Your task to perform on an android device: add a contact Image 0: 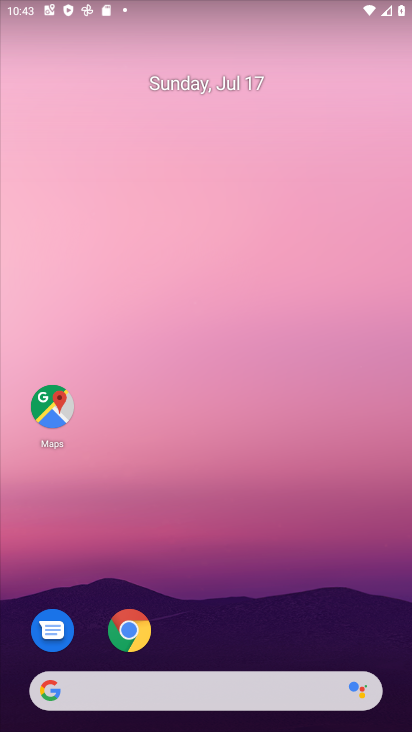
Step 0: drag from (311, 607) to (290, 22)
Your task to perform on an android device: add a contact Image 1: 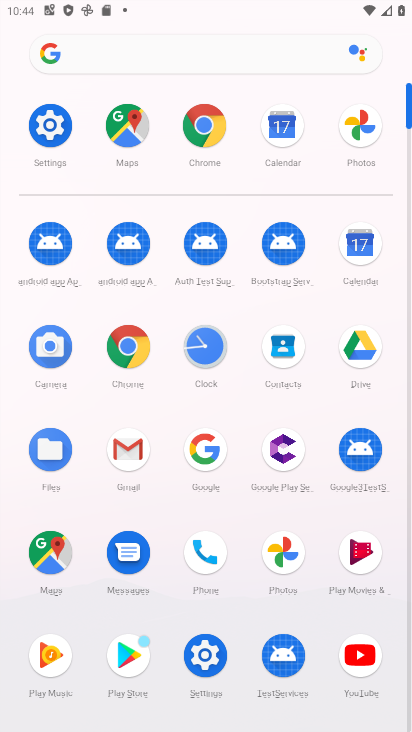
Step 1: click (294, 356)
Your task to perform on an android device: add a contact Image 2: 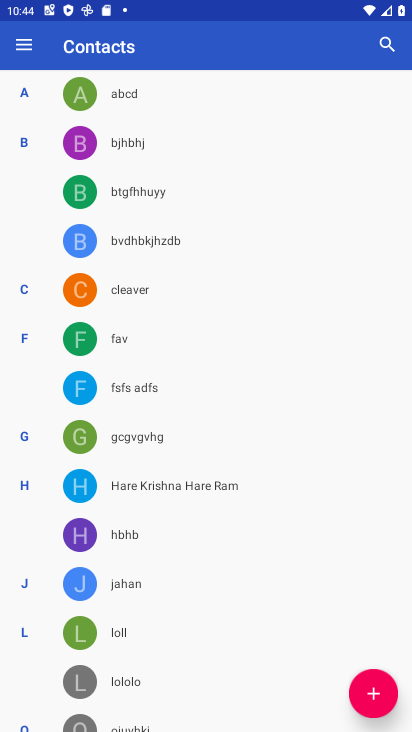
Step 2: click (364, 685)
Your task to perform on an android device: add a contact Image 3: 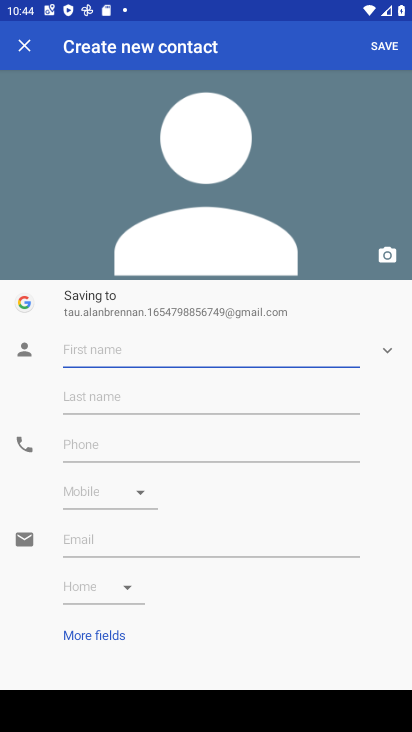
Step 3: type "cdcc"
Your task to perform on an android device: add a contact Image 4: 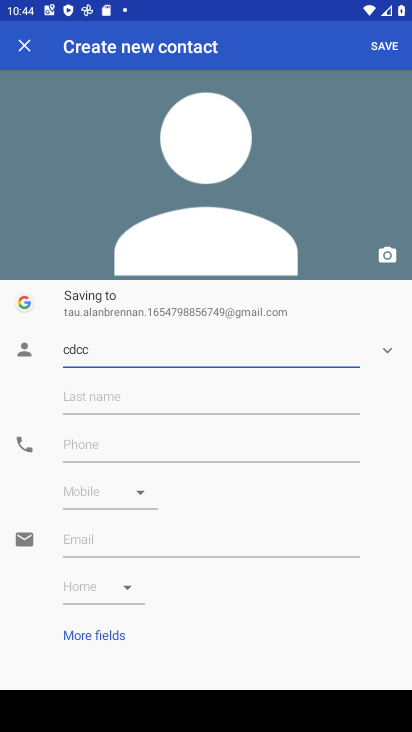
Step 4: type "s"
Your task to perform on an android device: add a contact Image 5: 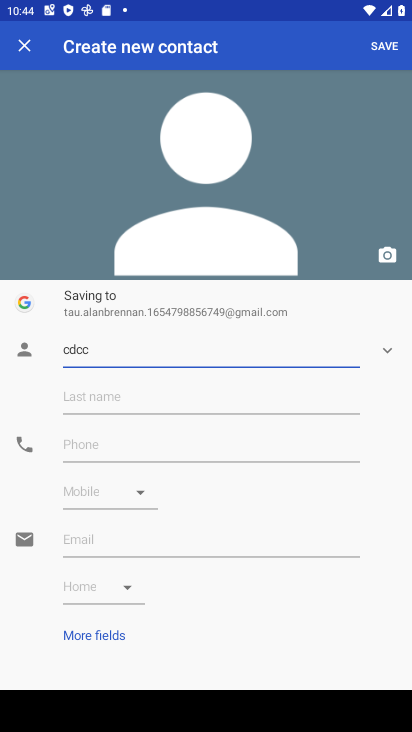
Step 5: click (160, 380)
Your task to perform on an android device: add a contact Image 6: 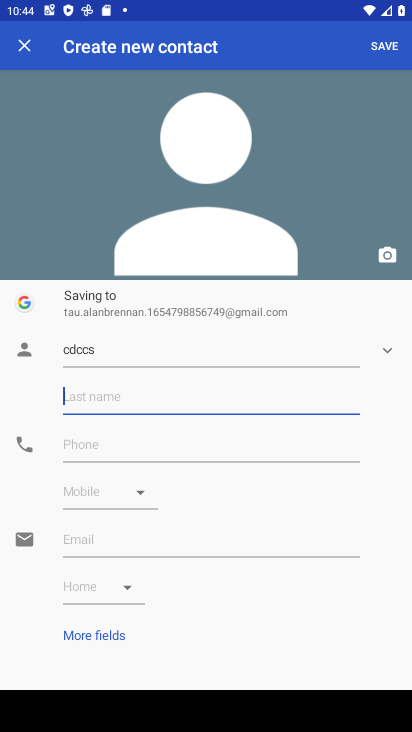
Step 6: type "scsdc"
Your task to perform on an android device: add a contact Image 7: 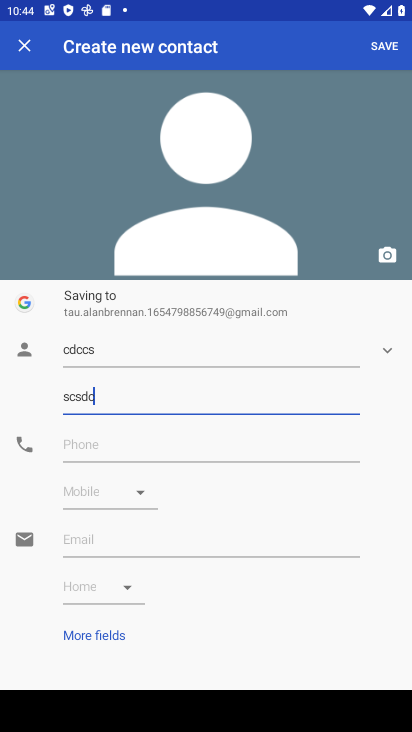
Step 7: click (116, 456)
Your task to perform on an android device: add a contact Image 8: 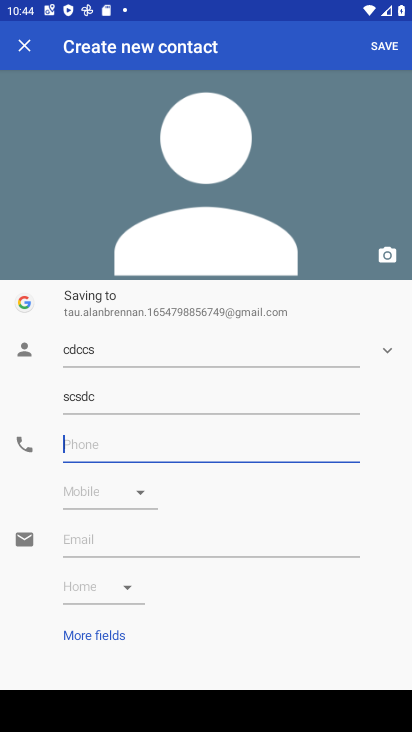
Step 8: type "234234234"
Your task to perform on an android device: add a contact Image 9: 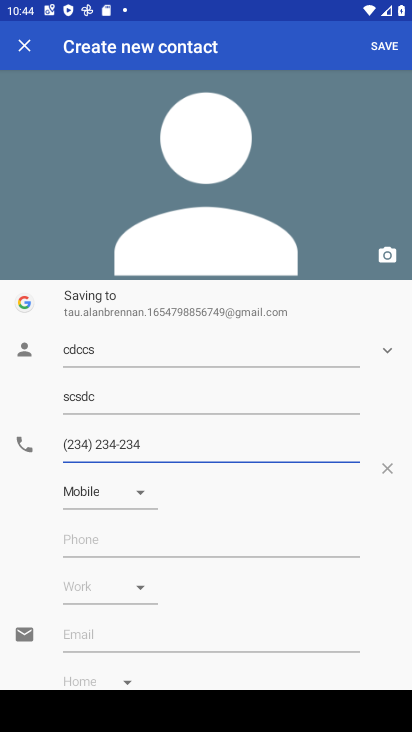
Step 9: click (389, 47)
Your task to perform on an android device: add a contact Image 10: 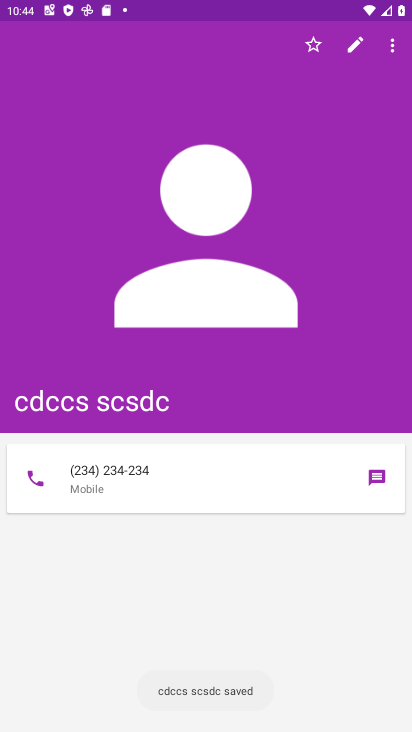
Step 10: task complete